Your task to perform on an android device: Find coffee shops on Maps Image 0: 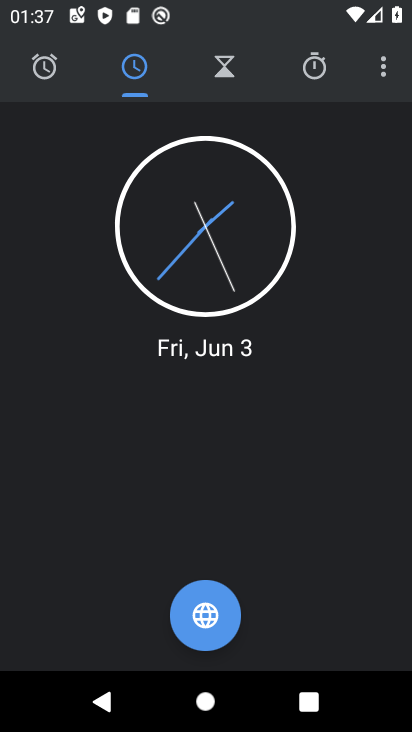
Step 0: press home button
Your task to perform on an android device: Find coffee shops on Maps Image 1: 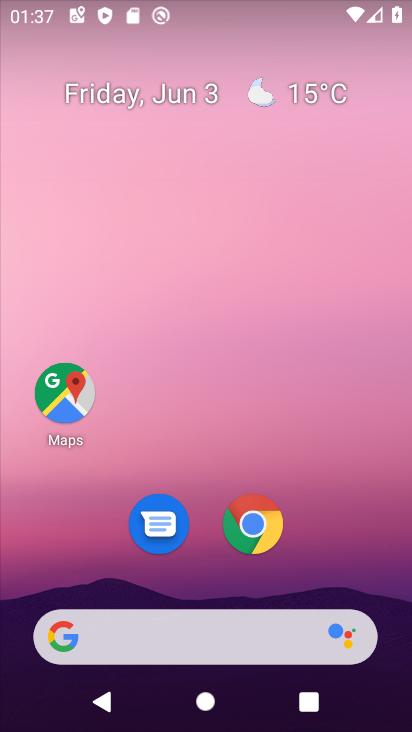
Step 1: click (82, 406)
Your task to perform on an android device: Find coffee shops on Maps Image 2: 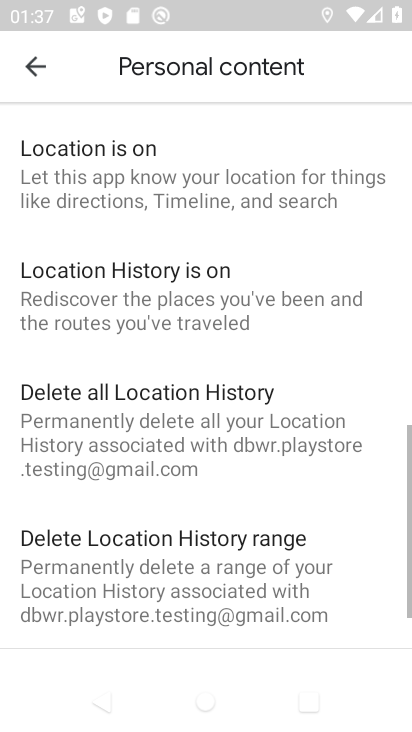
Step 2: click (26, 55)
Your task to perform on an android device: Find coffee shops on Maps Image 3: 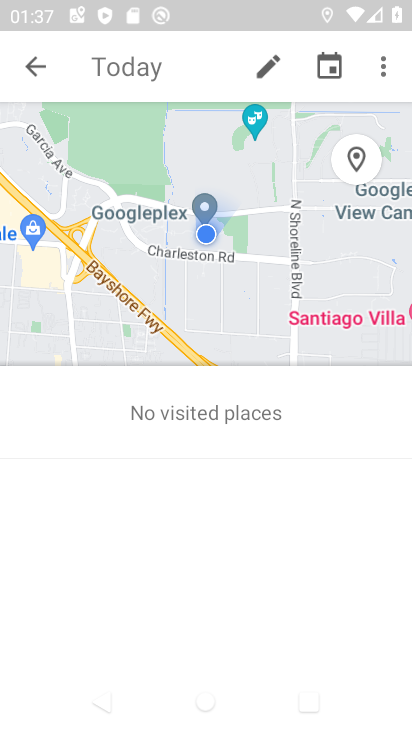
Step 3: click (30, 60)
Your task to perform on an android device: Find coffee shops on Maps Image 4: 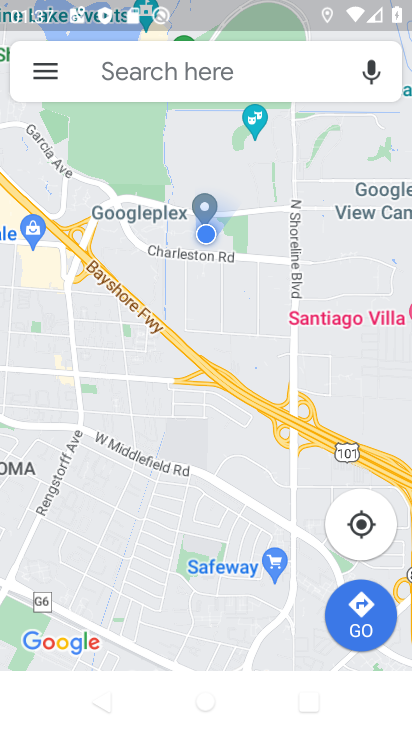
Step 4: click (149, 70)
Your task to perform on an android device: Find coffee shops on Maps Image 5: 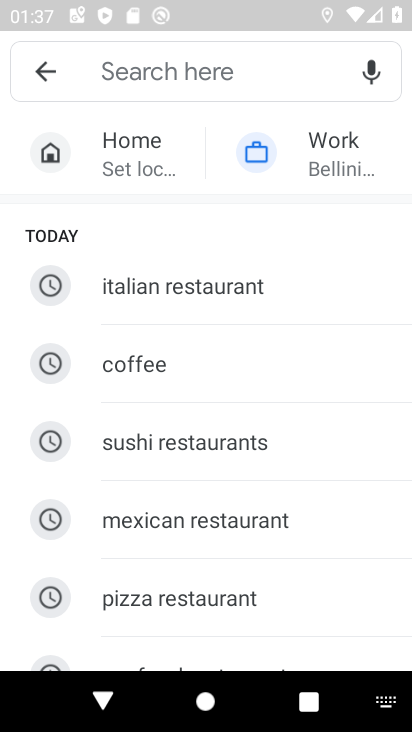
Step 5: click (204, 364)
Your task to perform on an android device: Find coffee shops on Maps Image 6: 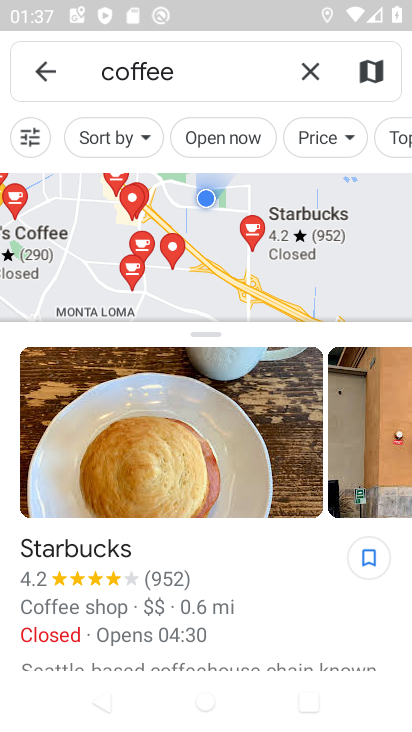
Step 6: task complete